Your task to perform on an android device: Open display settings Image 0: 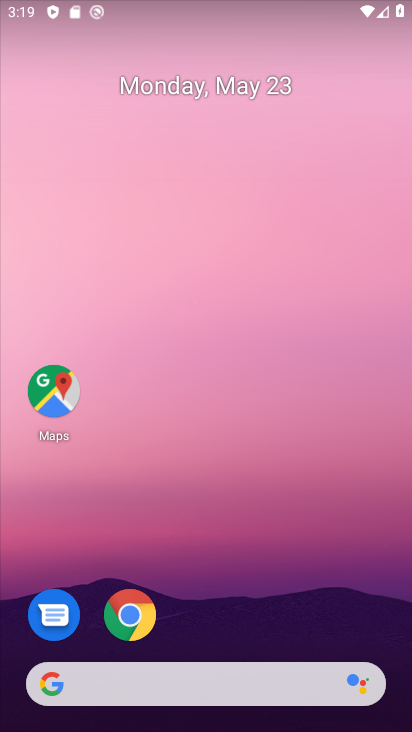
Step 0: drag from (243, 408) to (217, 7)
Your task to perform on an android device: Open display settings Image 1: 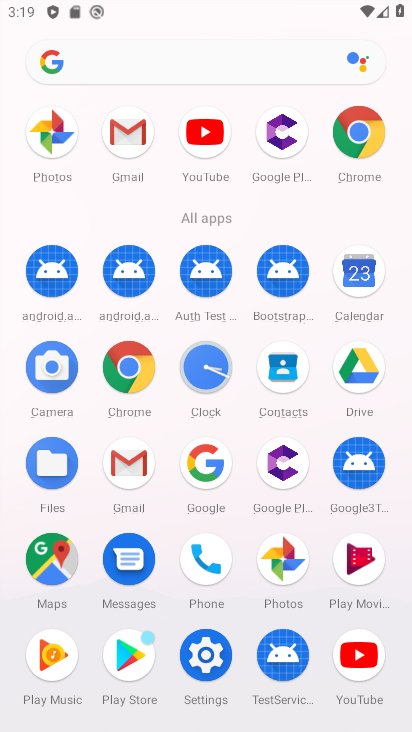
Step 1: drag from (5, 600) to (11, 212)
Your task to perform on an android device: Open display settings Image 2: 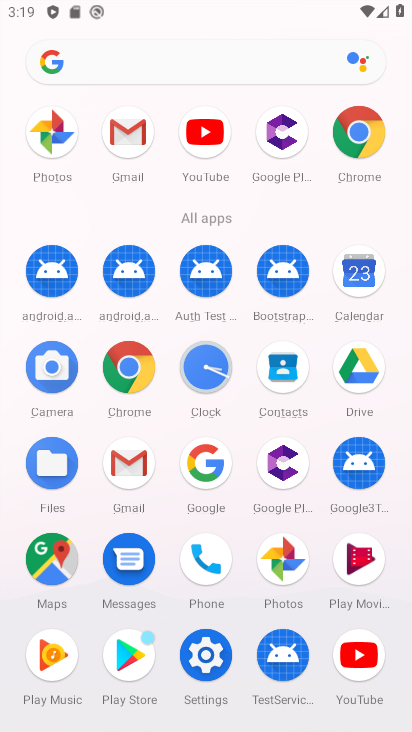
Step 2: click (205, 648)
Your task to perform on an android device: Open display settings Image 3: 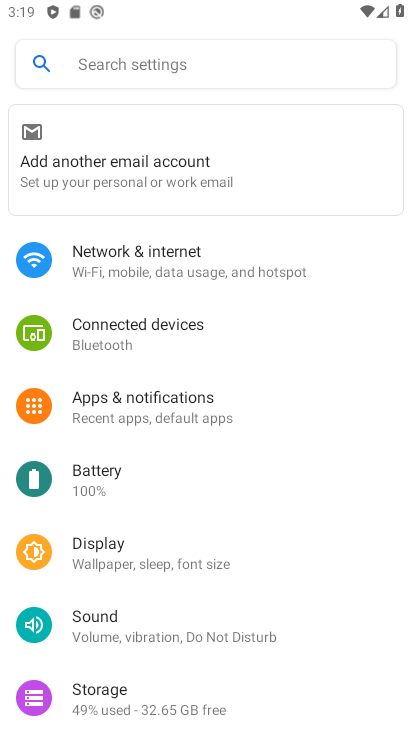
Step 3: click (112, 572)
Your task to perform on an android device: Open display settings Image 4: 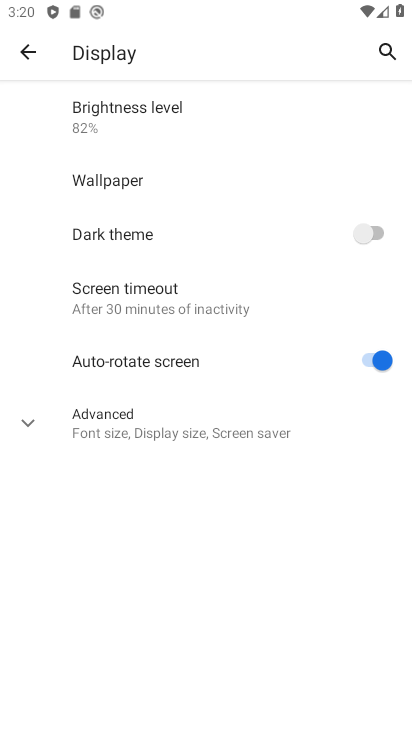
Step 4: click (29, 424)
Your task to perform on an android device: Open display settings Image 5: 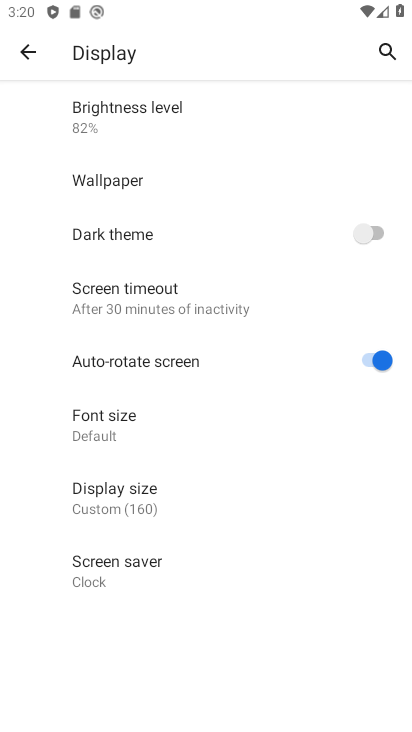
Step 5: task complete